Your task to perform on an android device: Open calendar and show me the third week of next month Image 0: 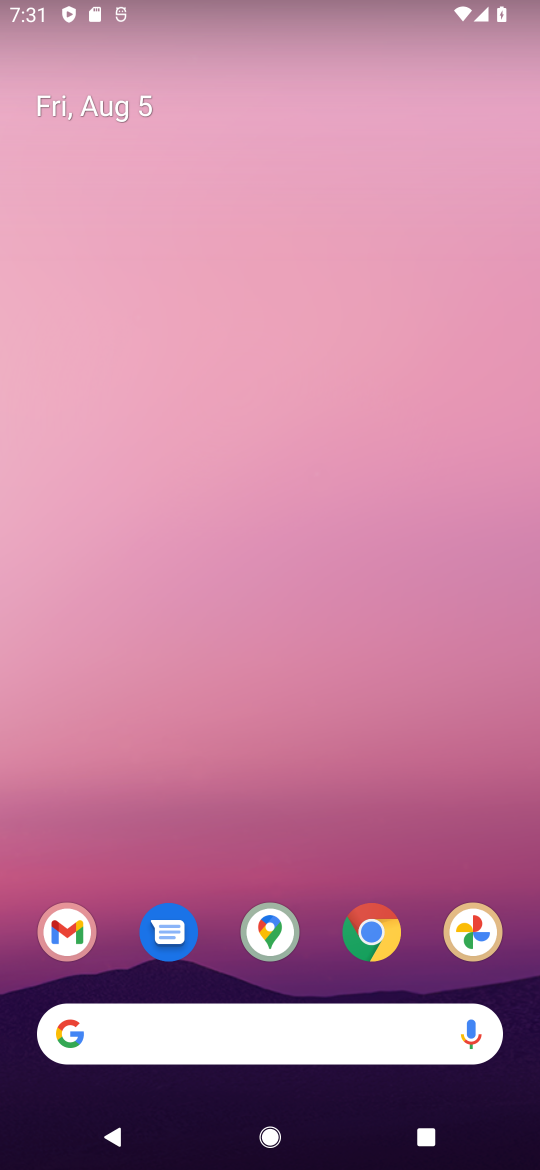
Step 0: drag from (309, 801) to (404, 33)
Your task to perform on an android device: Open calendar and show me the third week of next month Image 1: 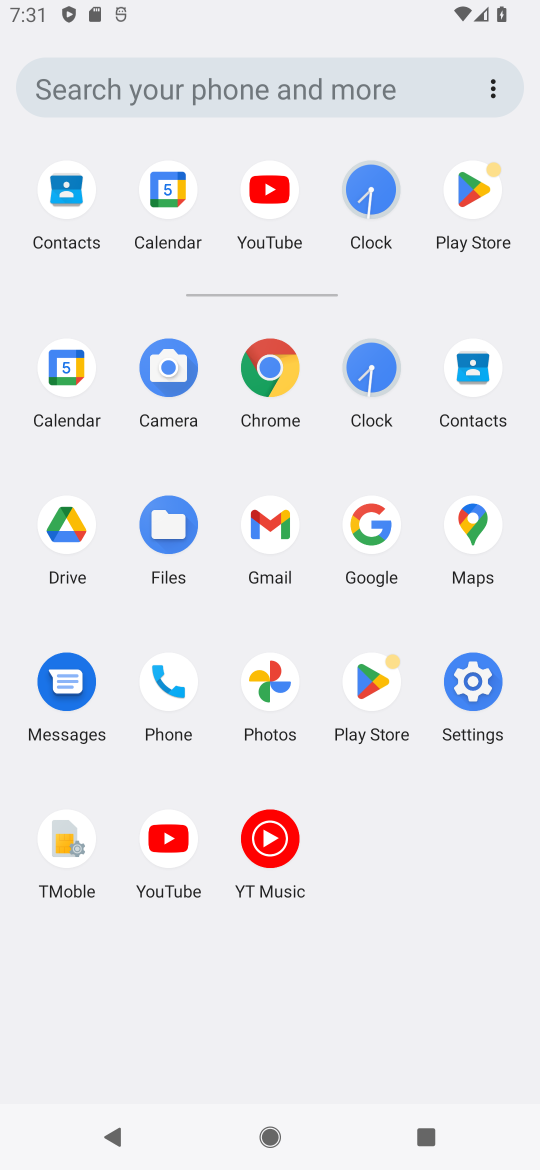
Step 1: click (54, 354)
Your task to perform on an android device: Open calendar and show me the third week of next month Image 2: 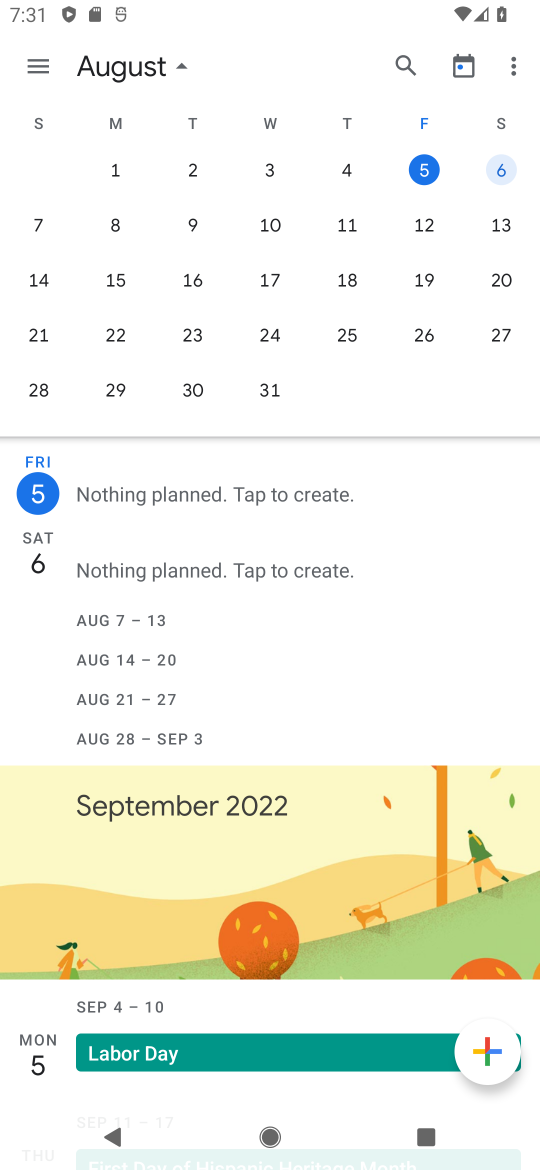
Step 2: drag from (460, 356) to (54, 237)
Your task to perform on an android device: Open calendar and show me the third week of next month Image 3: 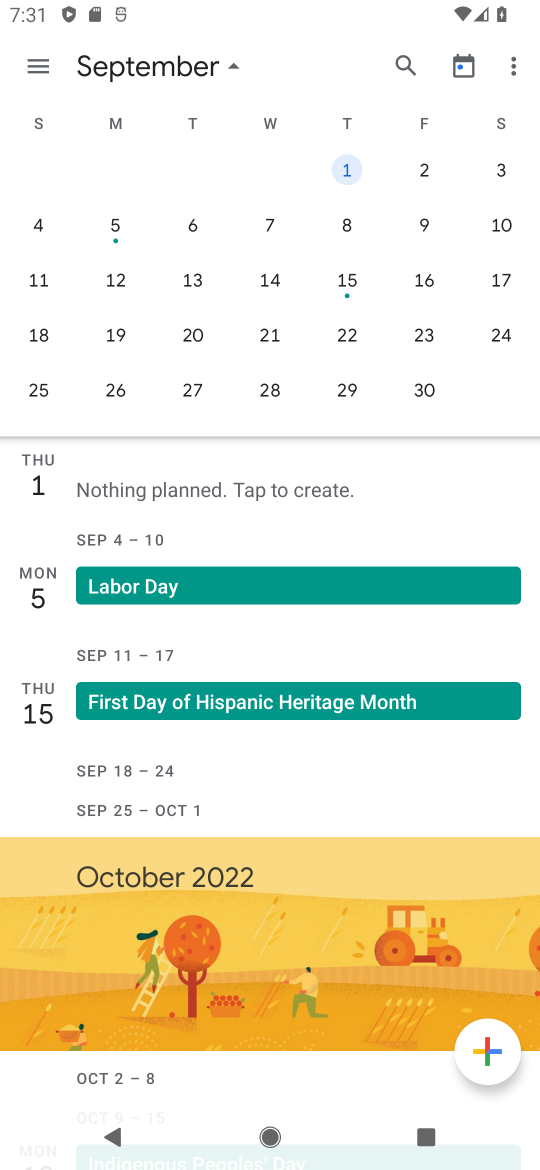
Step 3: click (119, 328)
Your task to perform on an android device: Open calendar and show me the third week of next month Image 4: 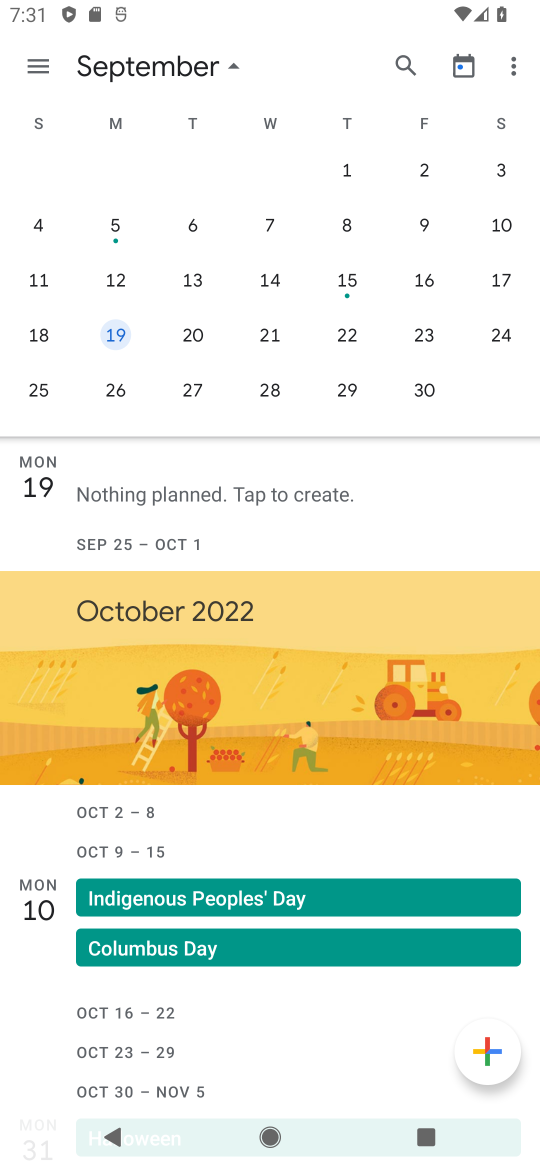
Step 4: click (38, 52)
Your task to perform on an android device: Open calendar and show me the third week of next month Image 5: 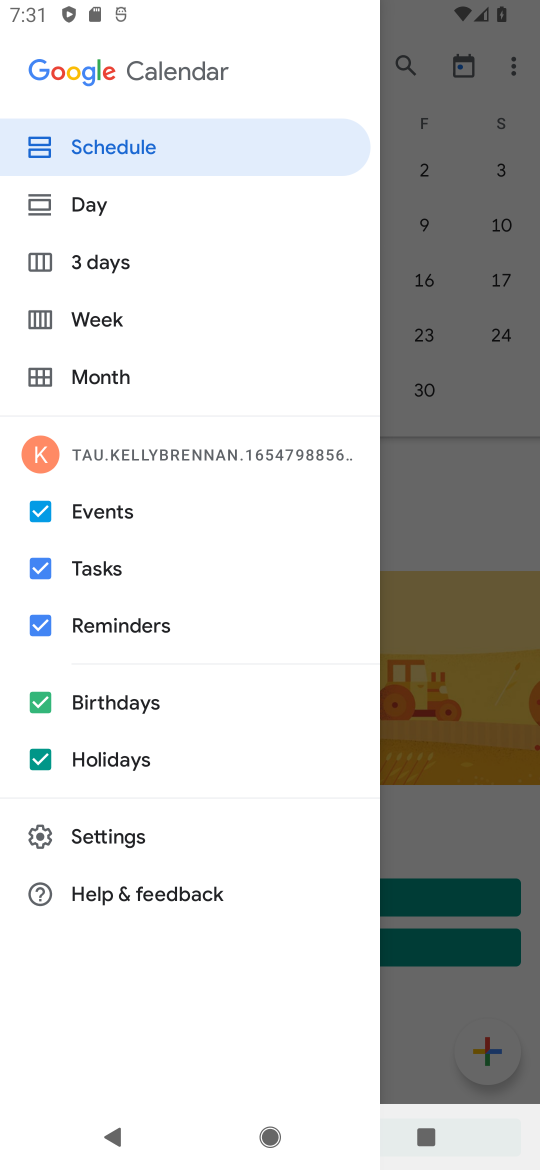
Step 5: click (104, 267)
Your task to perform on an android device: Open calendar and show me the third week of next month Image 6: 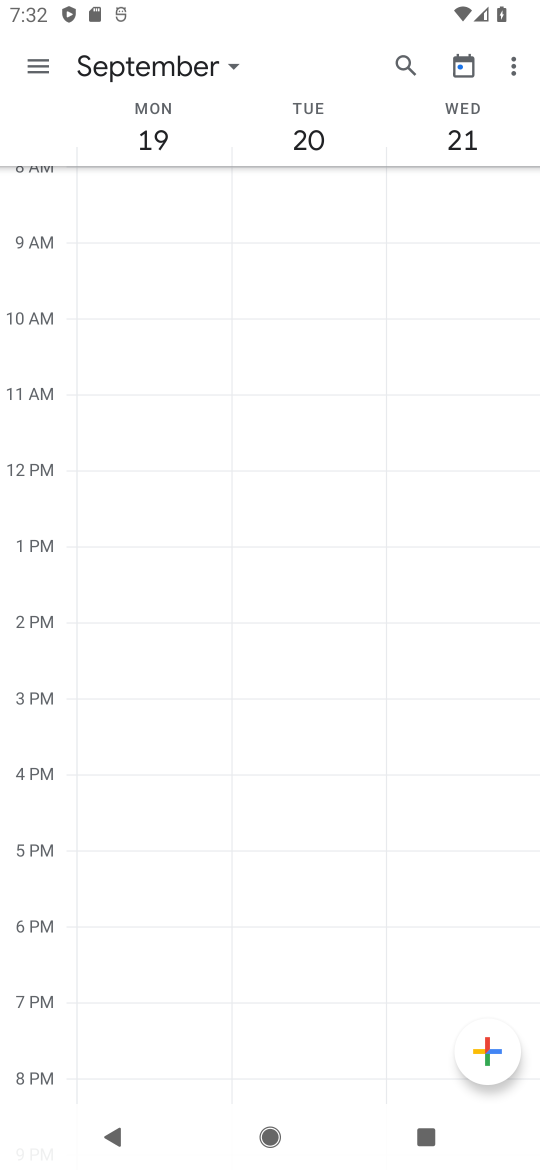
Step 6: click (27, 56)
Your task to perform on an android device: Open calendar and show me the third week of next month Image 7: 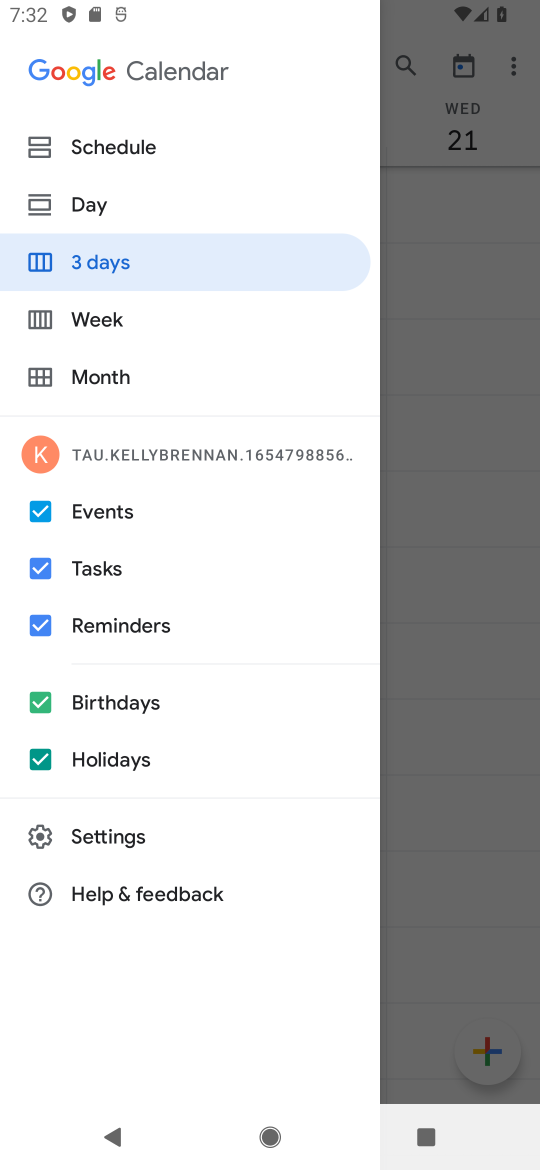
Step 7: click (96, 324)
Your task to perform on an android device: Open calendar and show me the third week of next month Image 8: 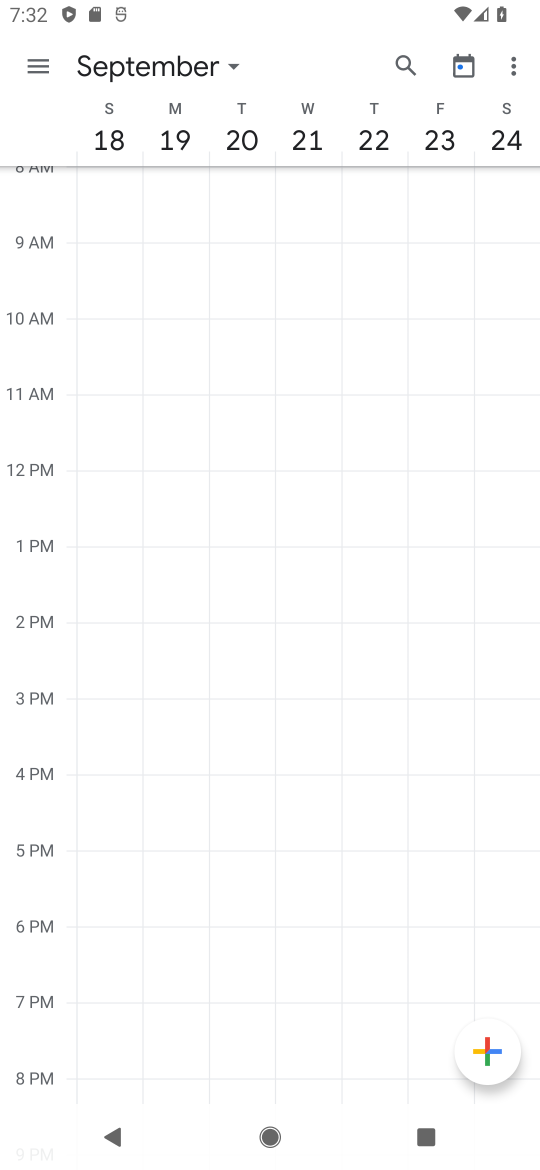
Step 8: task complete